Your task to perform on an android device: see sites visited before in the chrome app Image 0: 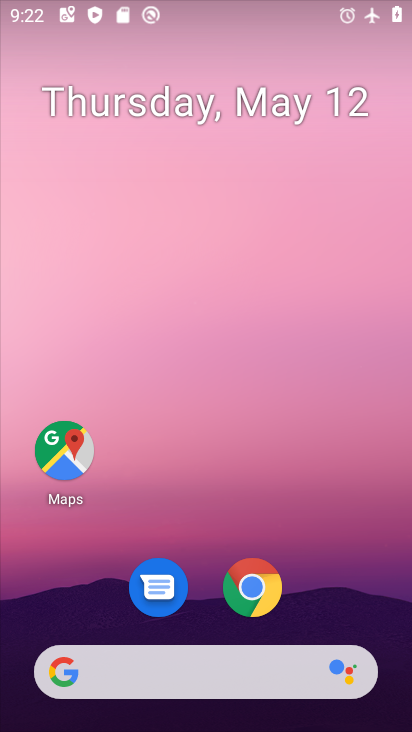
Step 0: drag from (296, 605) to (320, 114)
Your task to perform on an android device: see sites visited before in the chrome app Image 1: 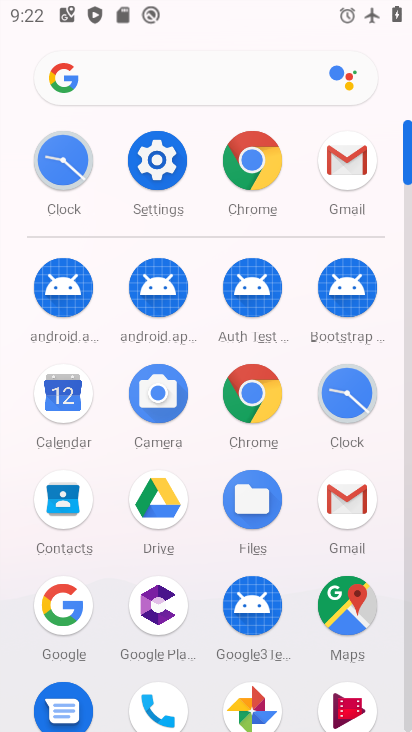
Step 1: click (240, 384)
Your task to perform on an android device: see sites visited before in the chrome app Image 2: 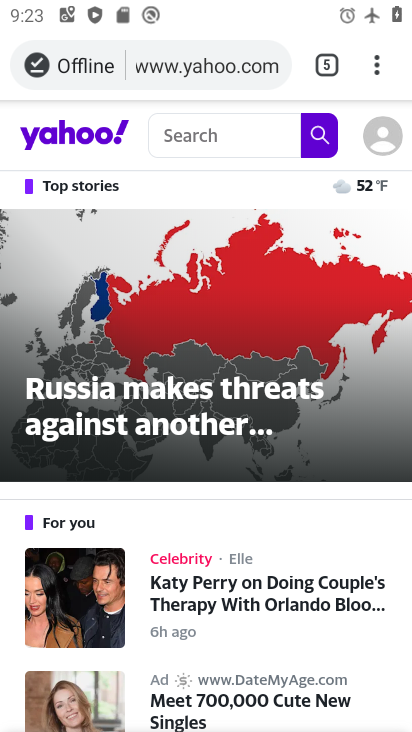
Step 2: click (354, 57)
Your task to perform on an android device: see sites visited before in the chrome app Image 3: 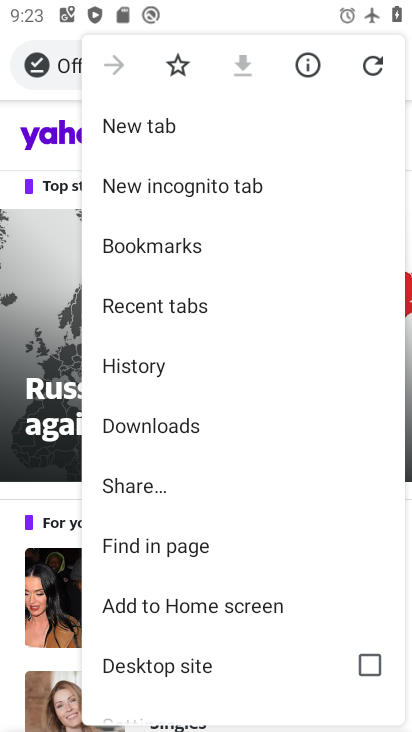
Step 3: drag from (268, 575) to (258, 108)
Your task to perform on an android device: see sites visited before in the chrome app Image 4: 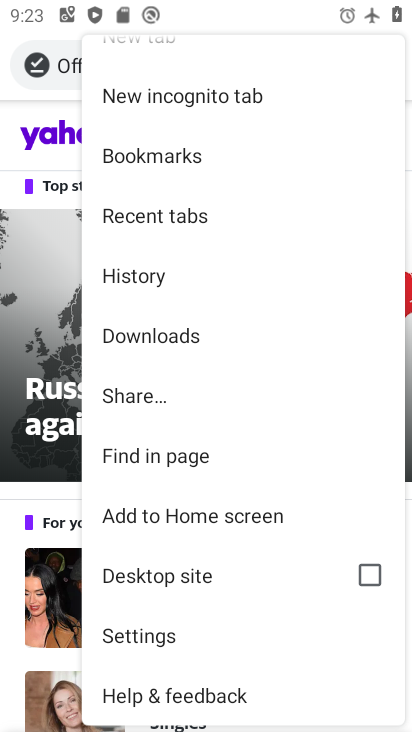
Step 4: click (156, 270)
Your task to perform on an android device: see sites visited before in the chrome app Image 5: 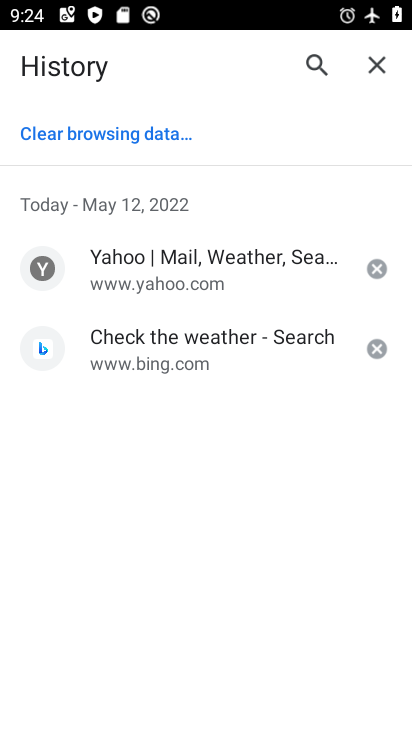
Step 5: task complete